Your task to perform on an android device: empty trash in the gmail app Image 0: 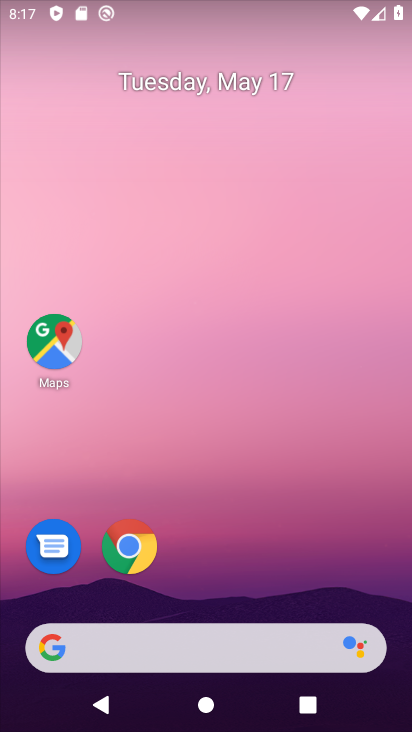
Step 0: drag from (373, 686) to (231, 156)
Your task to perform on an android device: empty trash in the gmail app Image 1: 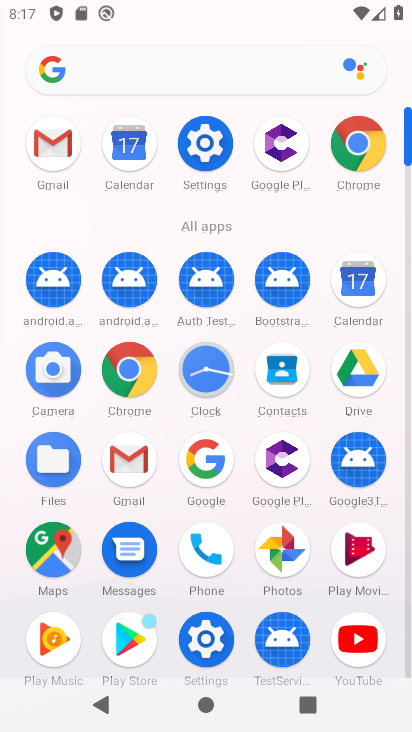
Step 1: click (121, 449)
Your task to perform on an android device: empty trash in the gmail app Image 2: 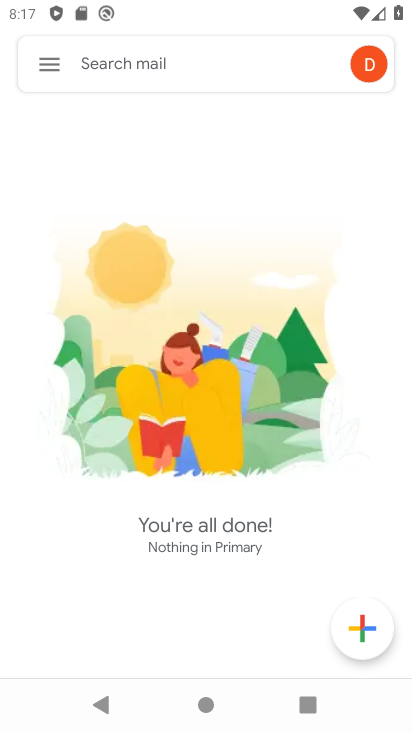
Step 2: click (43, 62)
Your task to perform on an android device: empty trash in the gmail app Image 3: 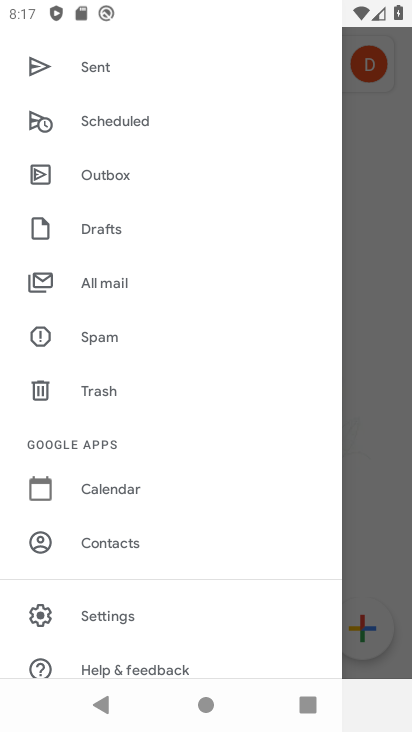
Step 3: click (105, 397)
Your task to perform on an android device: empty trash in the gmail app Image 4: 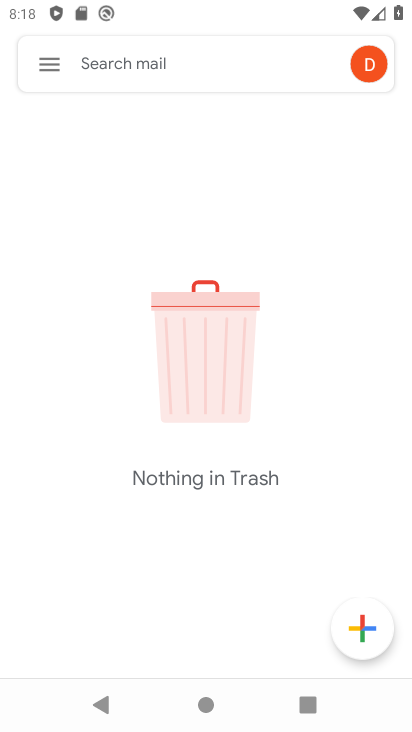
Step 4: task complete